Your task to perform on an android device: Open Google Chrome and open the bookmarks view Image 0: 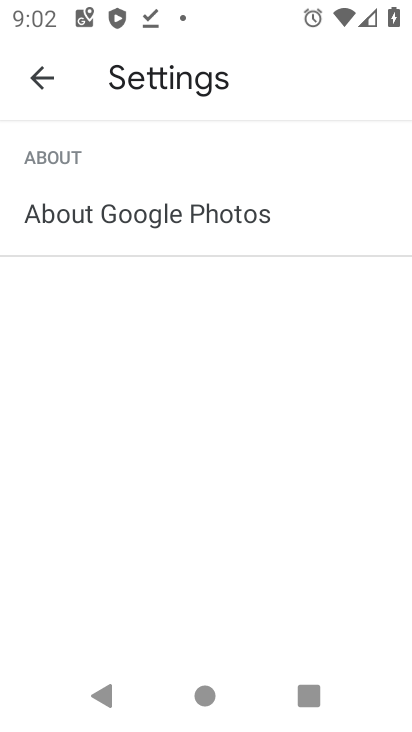
Step 0: click (42, 71)
Your task to perform on an android device: Open Google Chrome and open the bookmarks view Image 1: 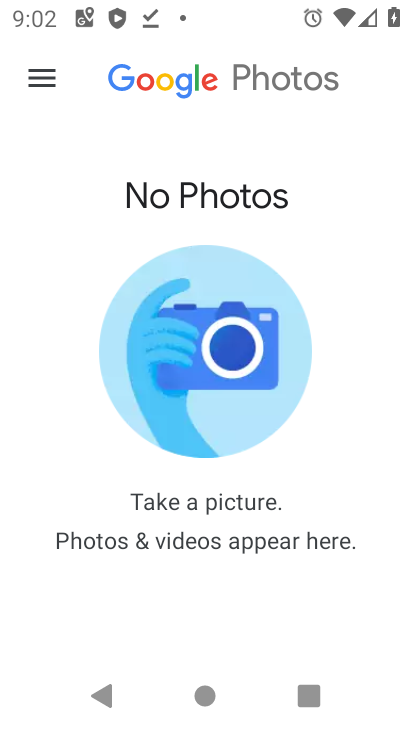
Step 1: press back button
Your task to perform on an android device: Open Google Chrome and open the bookmarks view Image 2: 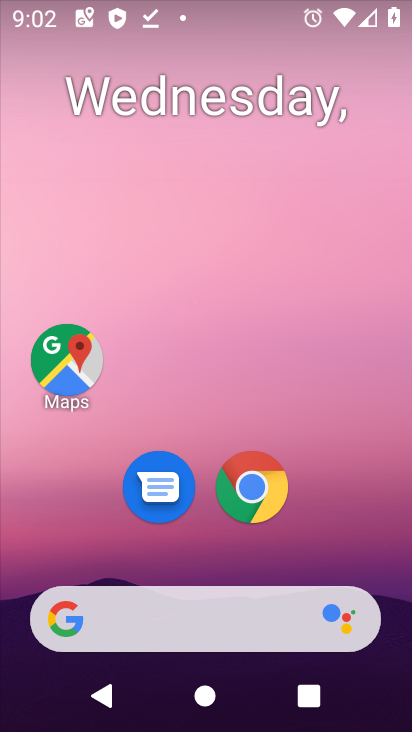
Step 2: drag from (257, 644) to (144, 232)
Your task to perform on an android device: Open Google Chrome and open the bookmarks view Image 3: 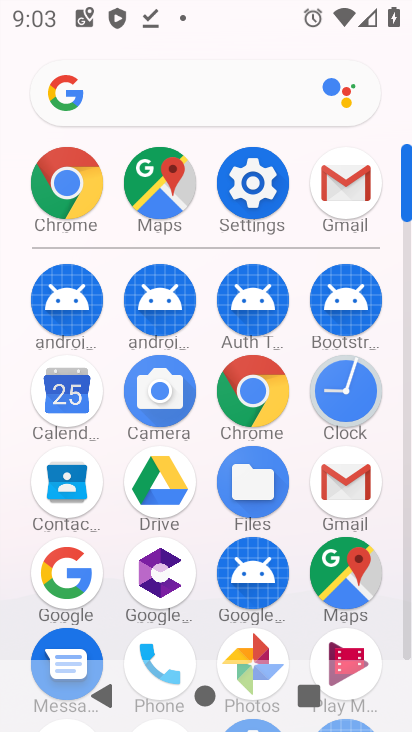
Step 3: click (57, 170)
Your task to perform on an android device: Open Google Chrome and open the bookmarks view Image 4: 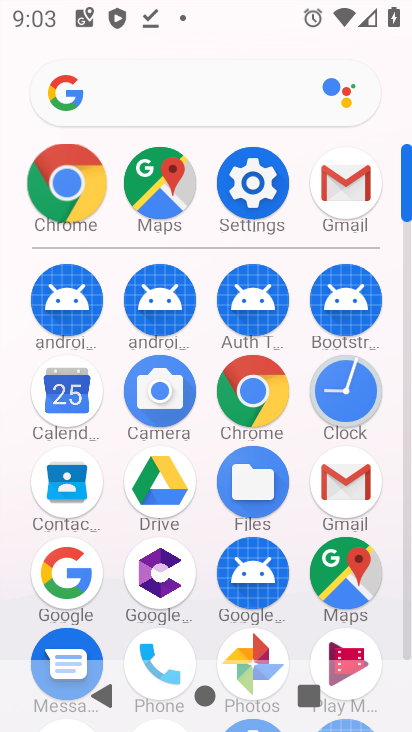
Step 4: click (57, 171)
Your task to perform on an android device: Open Google Chrome and open the bookmarks view Image 5: 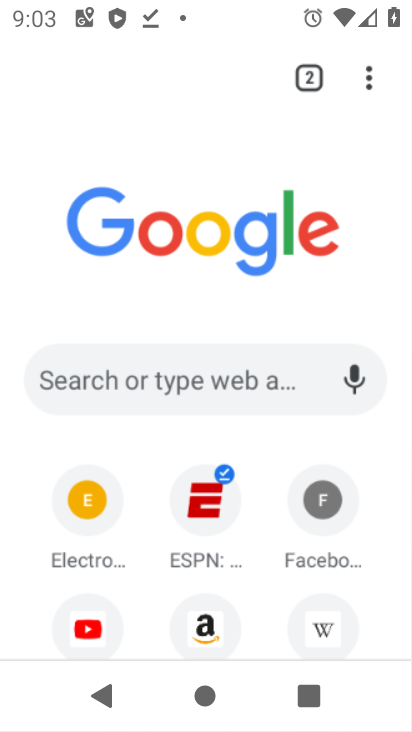
Step 5: click (57, 178)
Your task to perform on an android device: Open Google Chrome and open the bookmarks view Image 6: 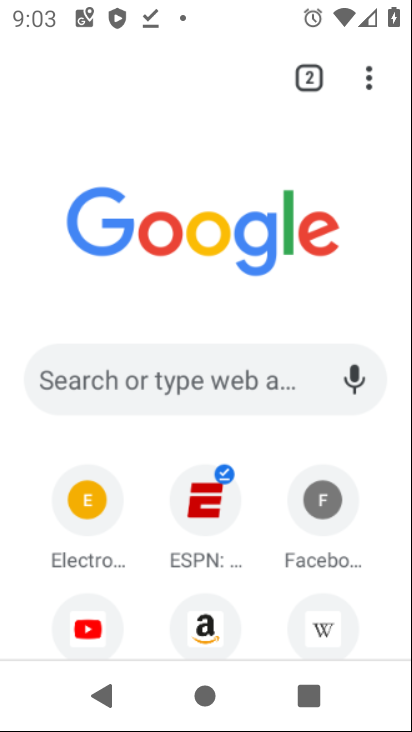
Step 6: click (57, 182)
Your task to perform on an android device: Open Google Chrome and open the bookmarks view Image 7: 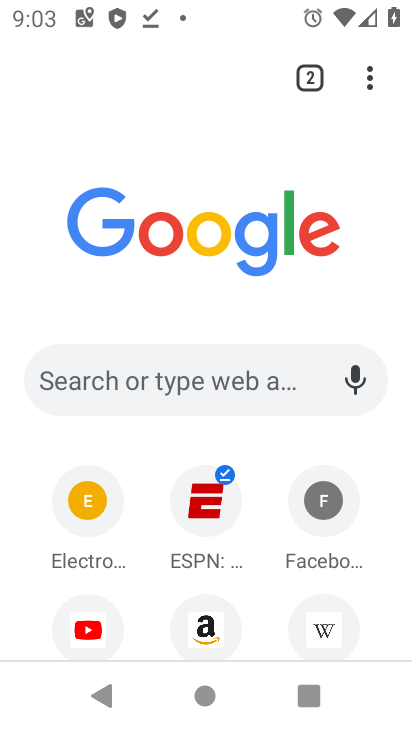
Step 7: drag from (370, 70) to (103, 309)
Your task to perform on an android device: Open Google Chrome and open the bookmarks view Image 8: 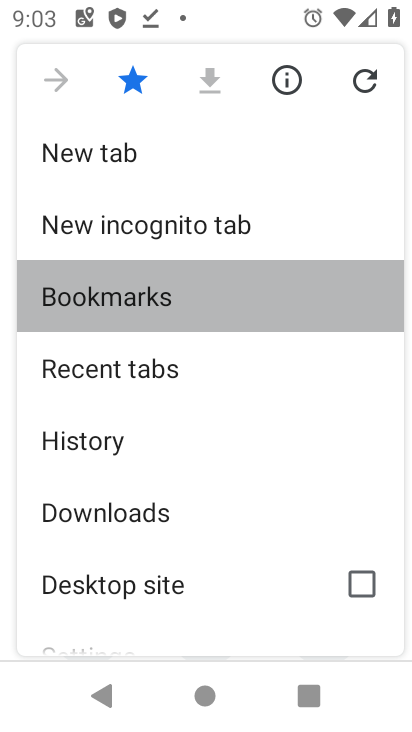
Step 8: click (104, 307)
Your task to perform on an android device: Open Google Chrome and open the bookmarks view Image 9: 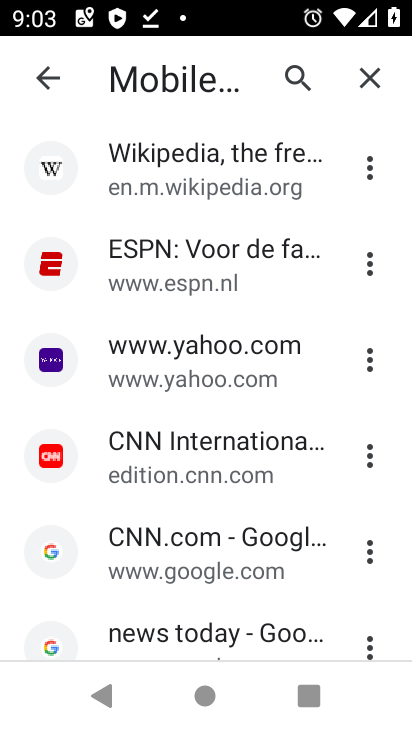
Step 9: task complete